Your task to perform on an android device: Clear the cart on bestbuy. Search for "asus zenbook" on bestbuy, select the first entry, and add it to the cart. Image 0: 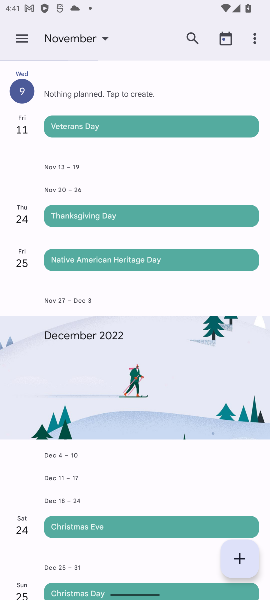
Step 0: press home button
Your task to perform on an android device: Clear the cart on bestbuy. Search for "asus zenbook" on bestbuy, select the first entry, and add it to the cart. Image 1: 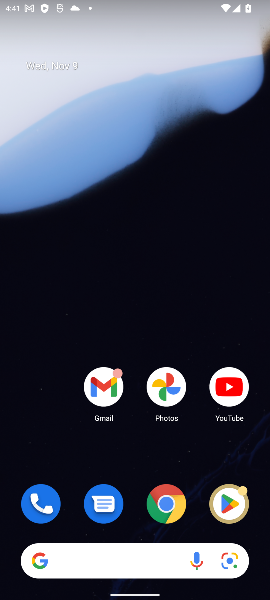
Step 1: click (112, 557)
Your task to perform on an android device: Clear the cart on bestbuy. Search for "asus zenbook" on bestbuy, select the first entry, and add it to the cart. Image 2: 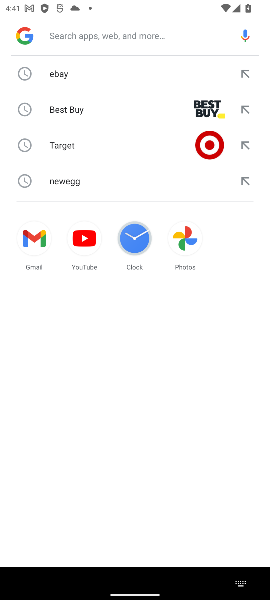
Step 2: click (145, 109)
Your task to perform on an android device: Clear the cart on bestbuy. Search for "asus zenbook" on bestbuy, select the first entry, and add it to the cart. Image 3: 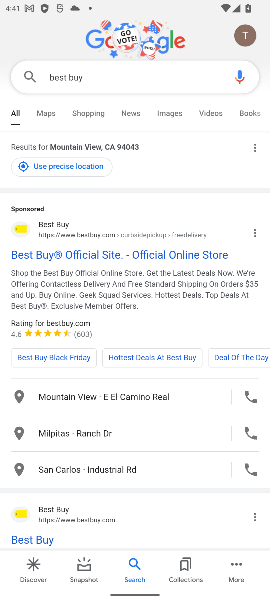
Step 3: click (51, 224)
Your task to perform on an android device: Clear the cart on bestbuy. Search for "asus zenbook" on bestbuy, select the first entry, and add it to the cart. Image 4: 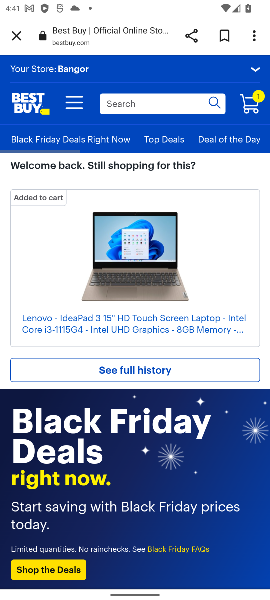
Step 4: click (155, 106)
Your task to perform on an android device: Clear the cart on bestbuy. Search for "asus zenbook" on bestbuy, select the first entry, and add it to the cart. Image 5: 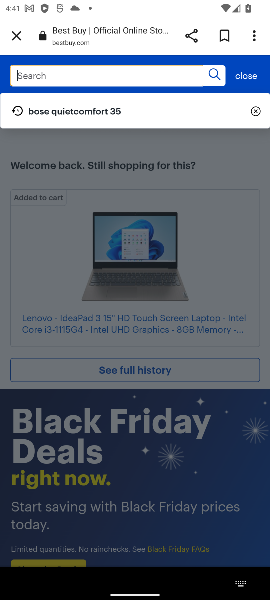
Step 5: type "asus zenbook"
Your task to perform on an android device: Clear the cart on bestbuy. Search for "asus zenbook" on bestbuy, select the first entry, and add it to the cart. Image 6: 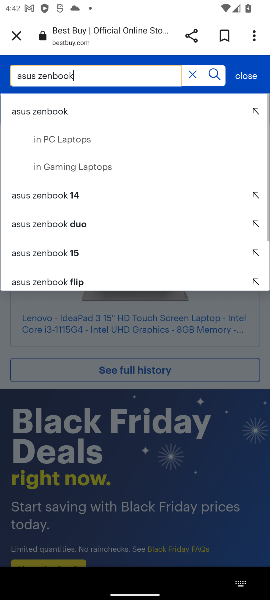
Step 6: click (217, 71)
Your task to perform on an android device: Clear the cart on bestbuy. Search for "asus zenbook" on bestbuy, select the first entry, and add it to the cart. Image 7: 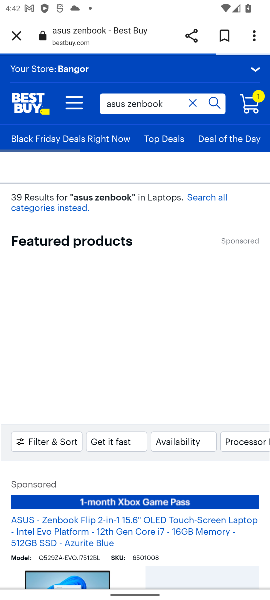
Step 7: drag from (166, 501) to (199, 263)
Your task to perform on an android device: Clear the cart on bestbuy. Search for "asus zenbook" on bestbuy, select the first entry, and add it to the cart. Image 8: 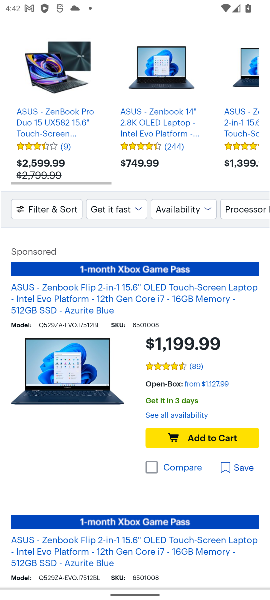
Step 8: click (208, 439)
Your task to perform on an android device: Clear the cart on bestbuy. Search for "asus zenbook" on bestbuy, select the first entry, and add it to the cart. Image 9: 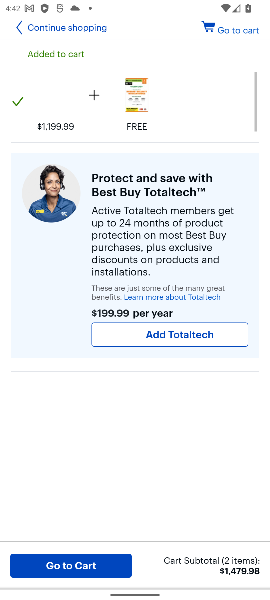
Step 9: click (59, 565)
Your task to perform on an android device: Clear the cart on bestbuy. Search for "asus zenbook" on bestbuy, select the first entry, and add it to the cart. Image 10: 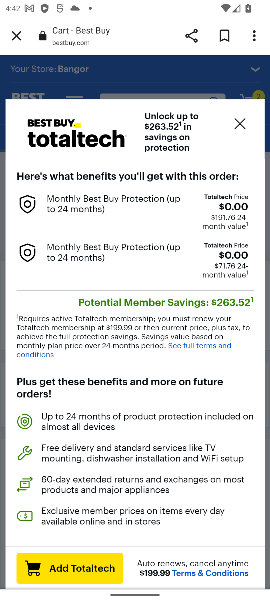
Step 10: task complete